Your task to perform on an android device: Open Google Maps Image 0: 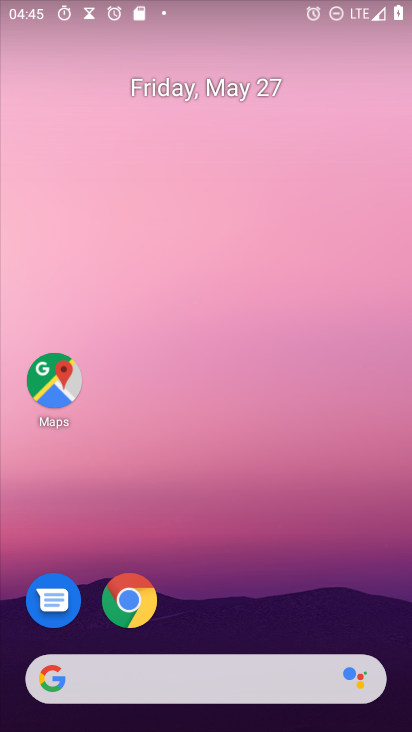
Step 0: drag from (199, 726) to (221, 70)
Your task to perform on an android device: Open Google Maps Image 1: 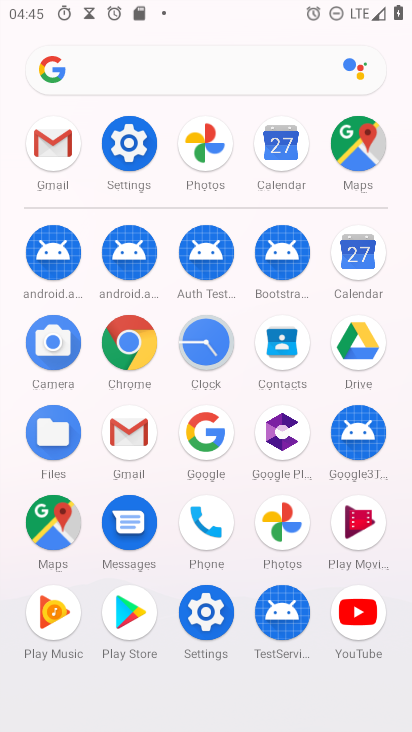
Step 1: click (48, 520)
Your task to perform on an android device: Open Google Maps Image 2: 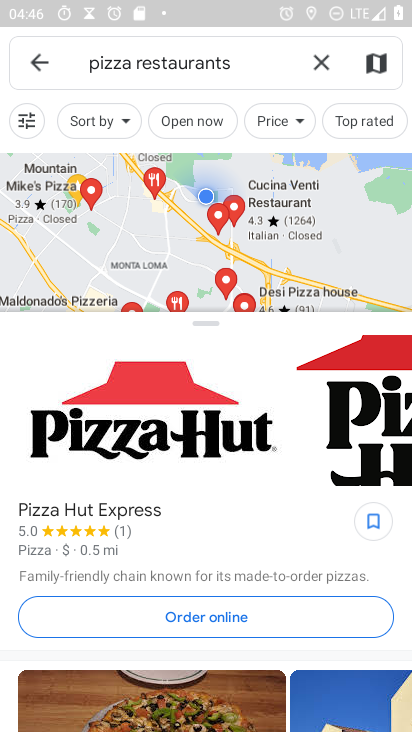
Step 2: task complete